Your task to perform on an android device: change keyboard looks Image 0: 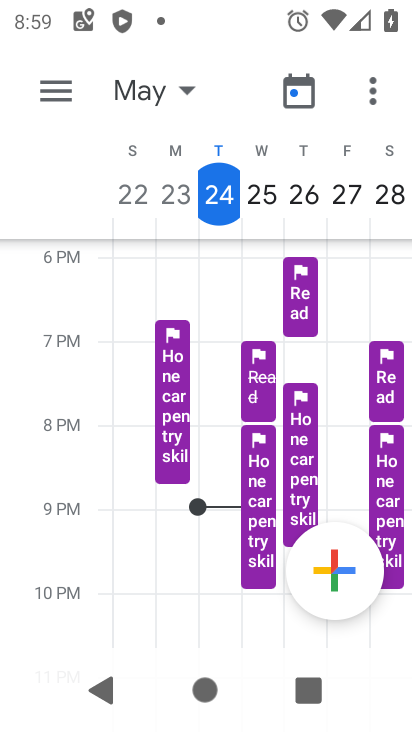
Step 0: press home button
Your task to perform on an android device: change keyboard looks Image 1: 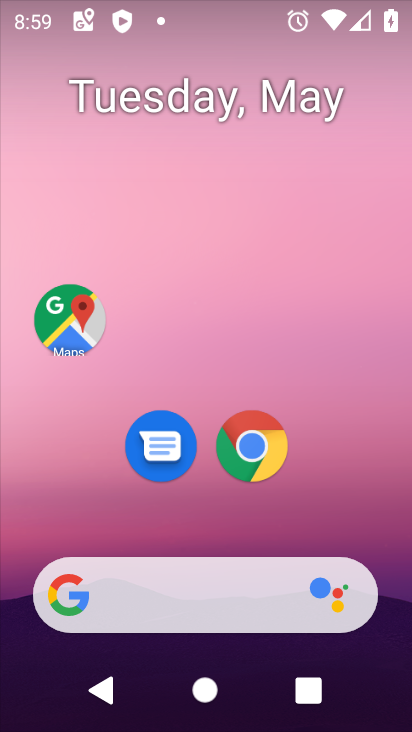
Step 1: drag from (370, 550) to (351, 11)
Your task to perform on an android device: change keyboard looks Image 2: 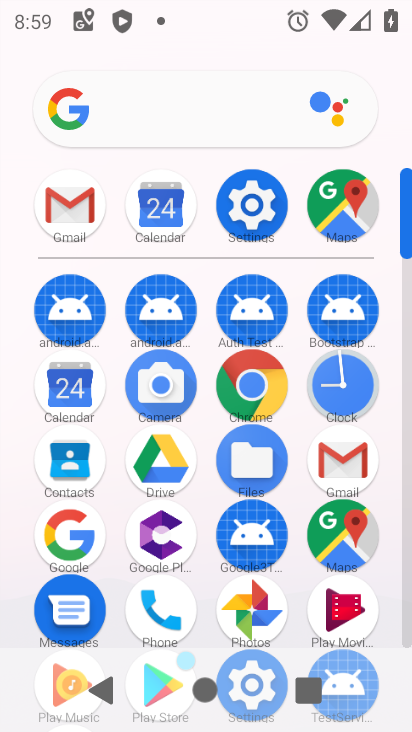
Step 2: click (250, 203)
Your task to perform on an android device: change keyboard looks Image 3: 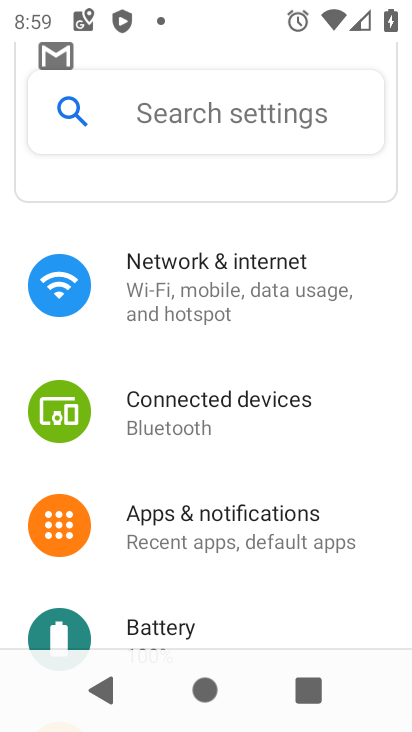
Step 3: drag from (375, 620) to (351, 104)
Your task to perform on an android device: change keyboard looks Image 4: 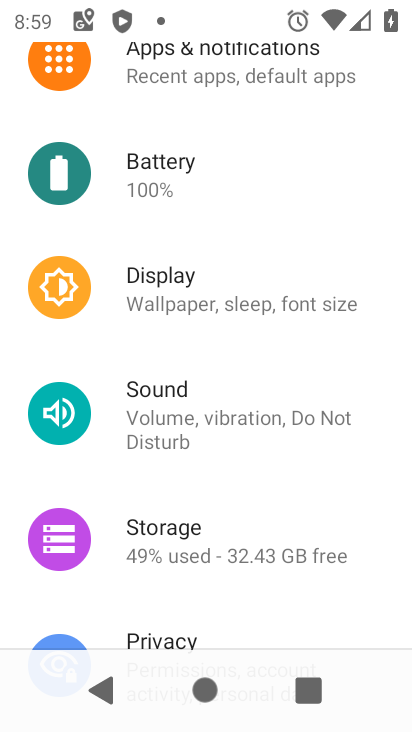
Step 4: drag from (317, 507) to (276, 130)
Your task to perform on an android device: change keyboard looks Image 5: 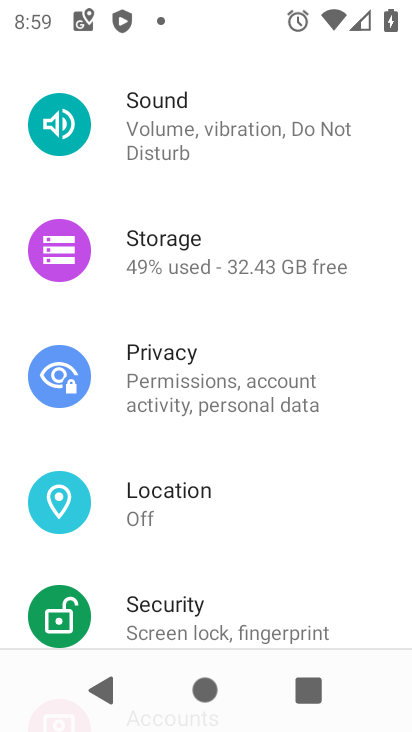
Step 5: drag from (295, 499) to (265, 134)
Your task to perform on an android device: change keyboard looks Image 6: 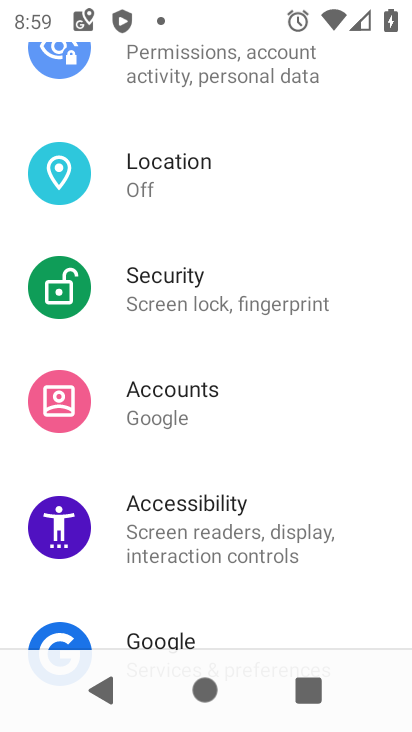
Step 6: drag from (296, 491) to (263, 136)
Your task to perform on an android device: change keyboard looks Image 7: 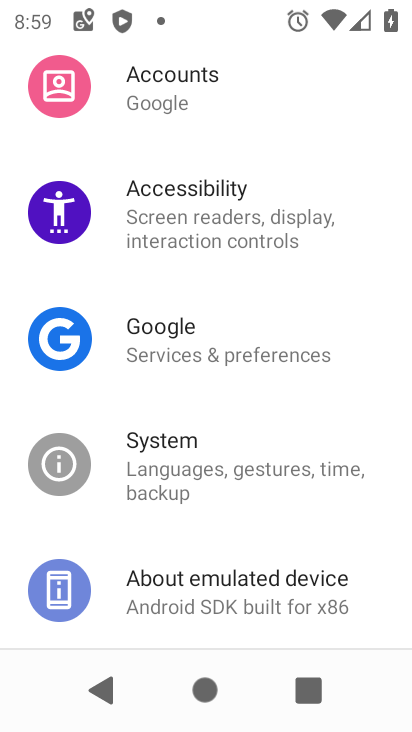
Step 7: click (168, 478)
Your task to perform on an android device: change keyboard looks Image 8: 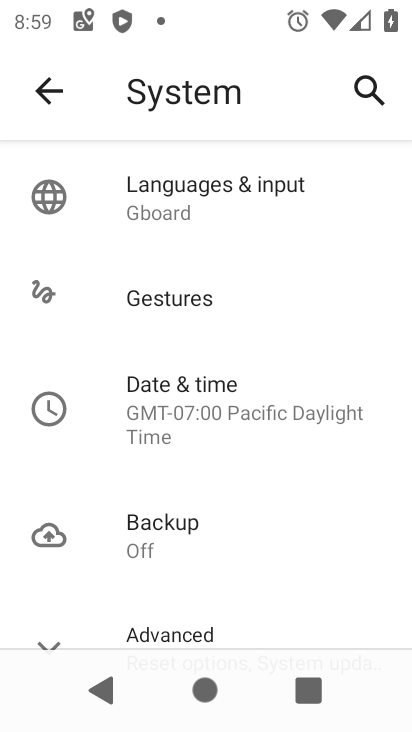
Step 8: click (156, 201)
Your task to perform on an android device: change keyboard looks Image 9: 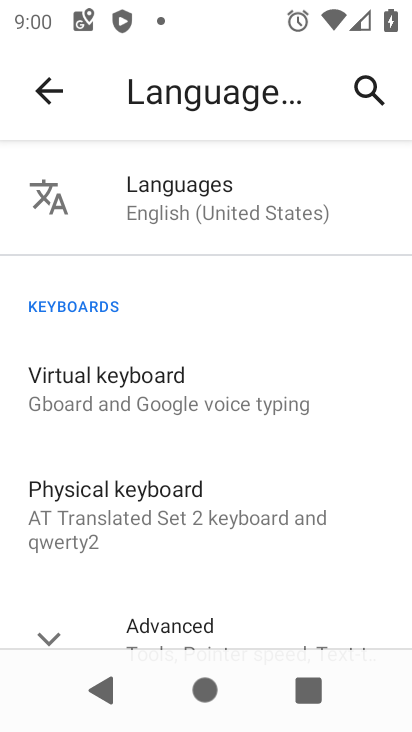
Step 9: click (88, 396)
Your task to perform on an android device: change keyboard looks Image 10: 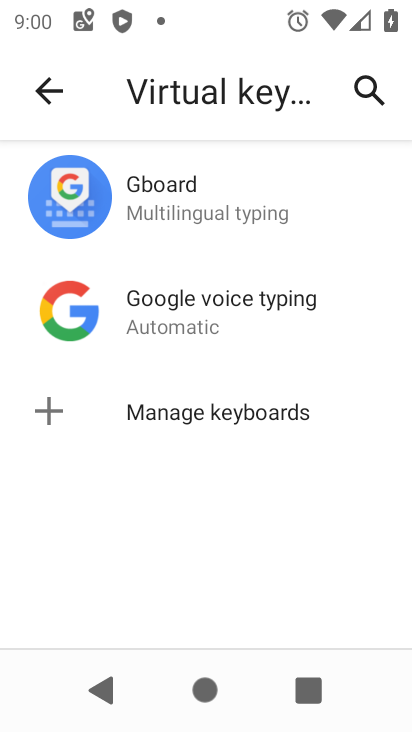
Step 10: click (106, 187)
Your task to perform on an android device: change keyboard looks Image 11: 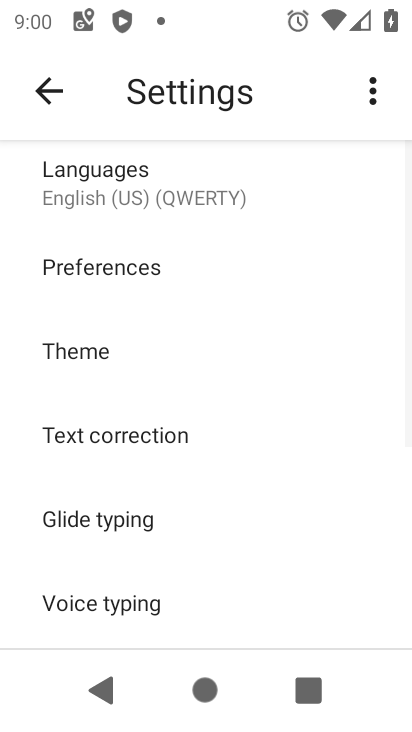
Step 11: click (88, 353)
Your task to perform on an android device: change keyboard looks Image 12: 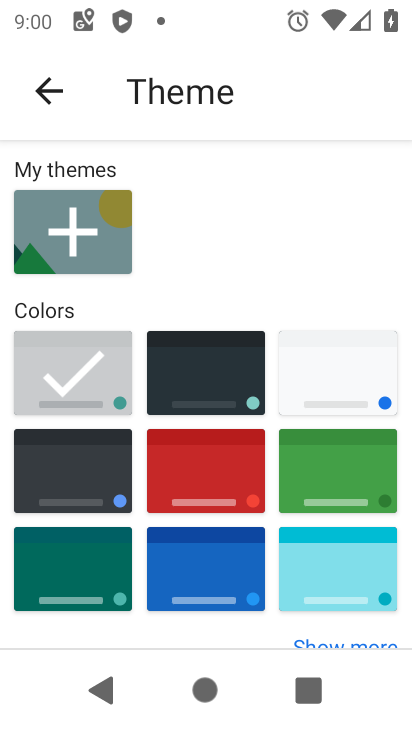
Step 12: click (193, 495)
Your task to perform on an android device: change keyboard looks Image 13: 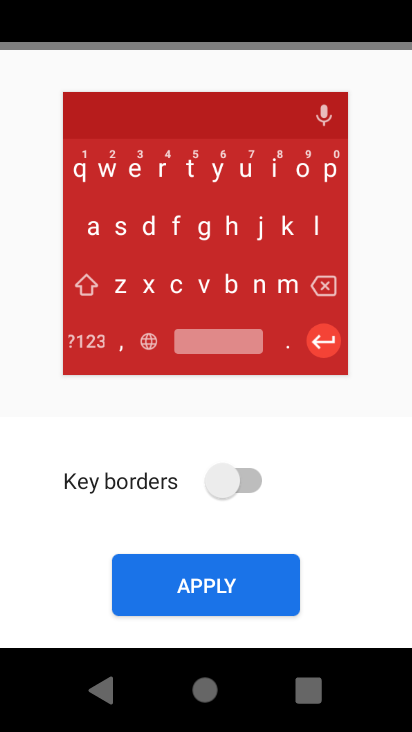
Step 13: click (226, 468)
Your task to perform on an android device: change keyboard looks Image 14: 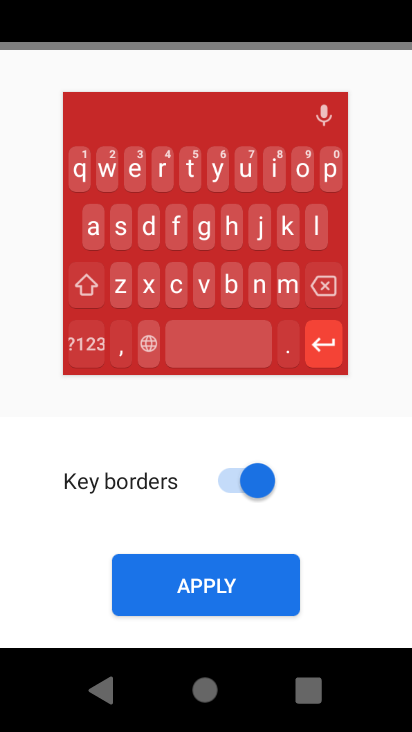
Step 14: click (193, 583)
Your task to perform on an android device: change keyboard looks Image 15: 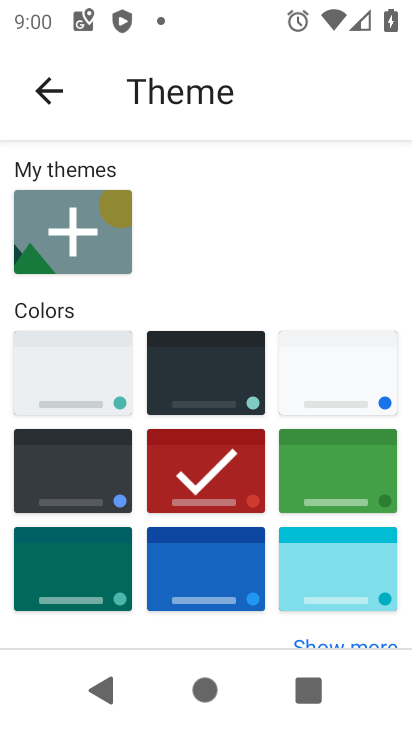
Step 15: task complete